Your task to perform on an android device: Open accessibility settings Image 0: 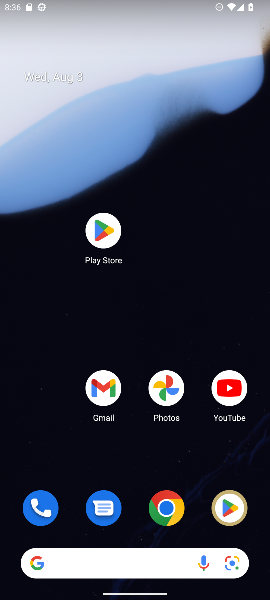
Step 0: drag from (153, 525) to (129, 15)
Your task to perform on an android device: Open accessibility settings Image 1: 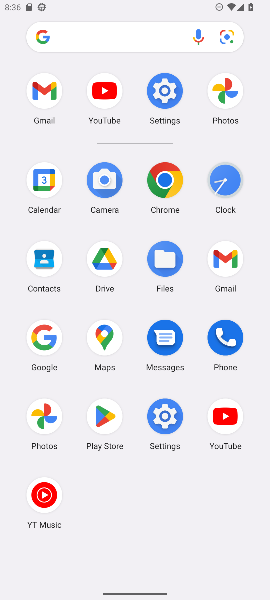
Step 1: click (166, 418)
Your task to perform on an android device: Open accessibility settings Image 2: 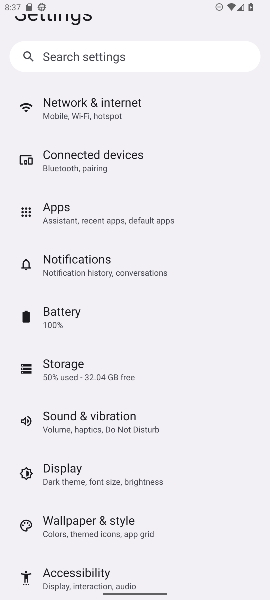
Step 2: drag from (148, 499) to (156, 193)
Your task to perform on an android device: Open accessibility settings Image 3: 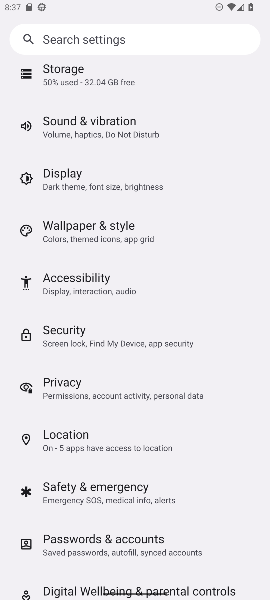
Step 3: click (52, 290)
Your task to perform on an android device: Open accessibility settings Image 4: 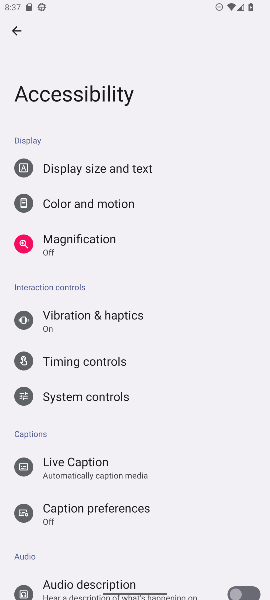
Step 4: task complete